Your task to perform on an android device: turn on bluetooth scan Image 0: 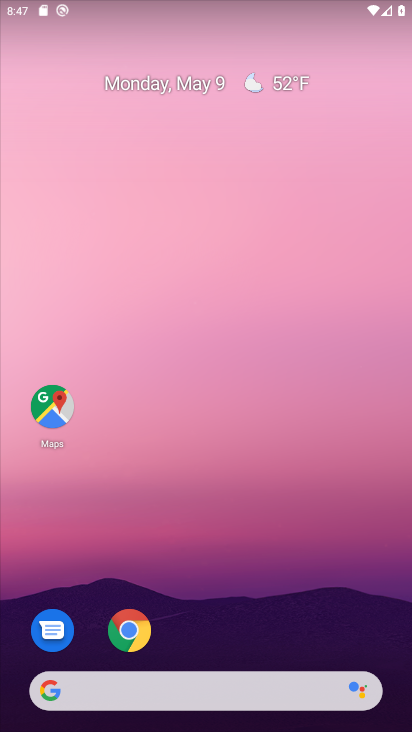
Step 0: drag from (224, 662) to (261, 26)
Your task to perform on an android device: turn on bluetooth scan Image 1: 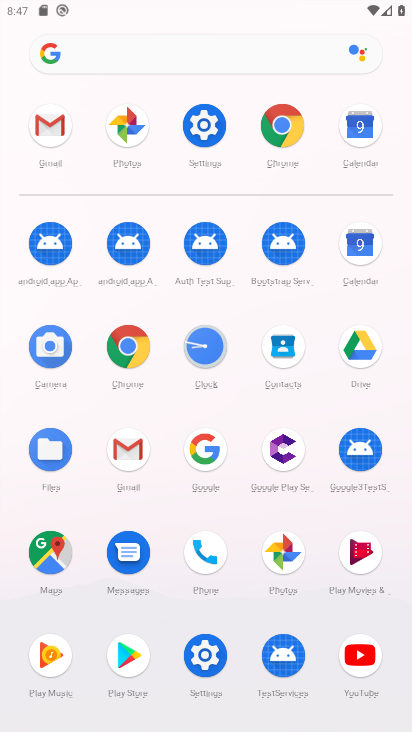
Step 1: click (202, 132)
Your task to perform on an android device: turn on bluetooth scan Image 2: 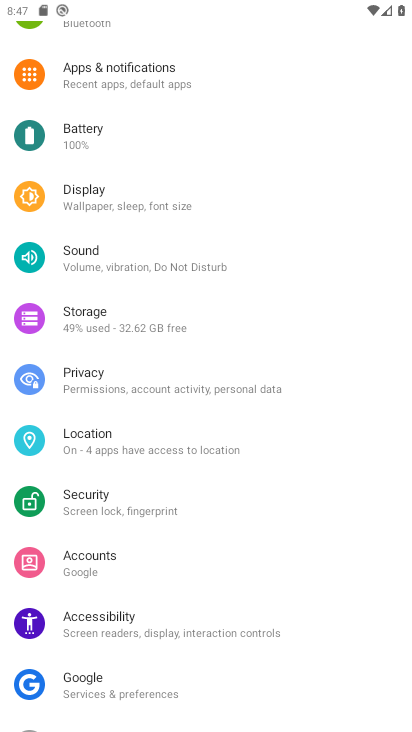
Step 2: drag from (137, 240) to (176, 181)
Your task to perform on an android device: turn on bluetooth scan Image 3: 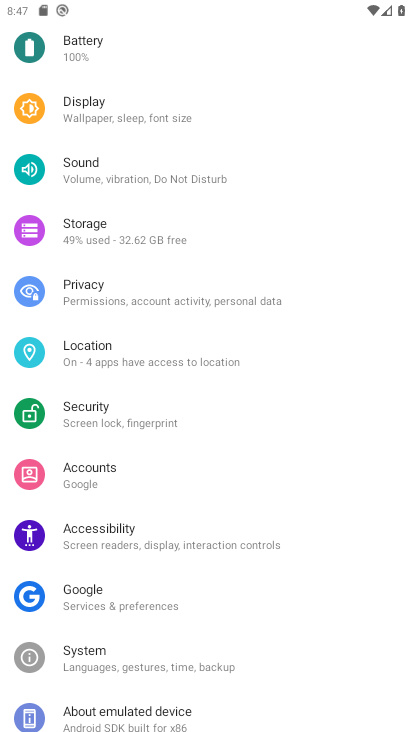
Step 3: click (136, 367)
Your task to perform on an android device: turn on bluetooth scan Image 4: 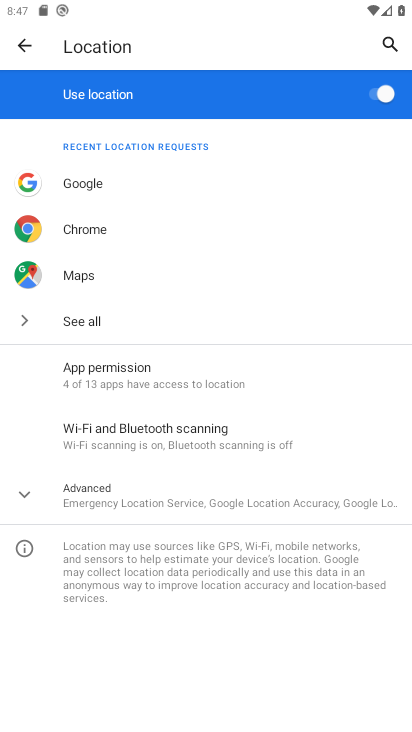
Step 4: click (121, 437)
Your task to perform on an android device: turn on bluetooth scan Image 5: 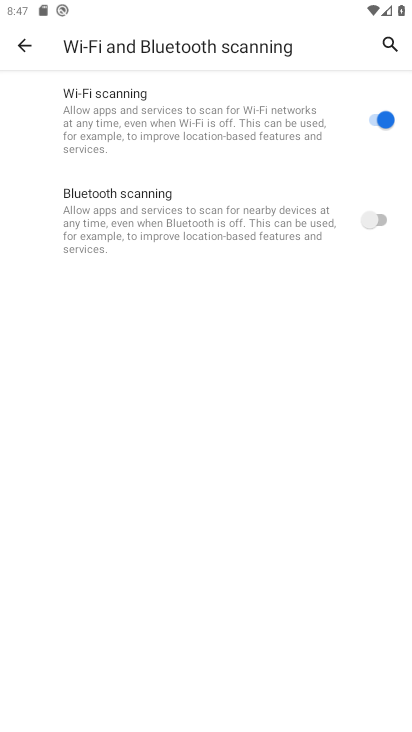
Step 5: click (385, 218)
Your task to perform on an android device: turn on bluetooth scan Image 6: 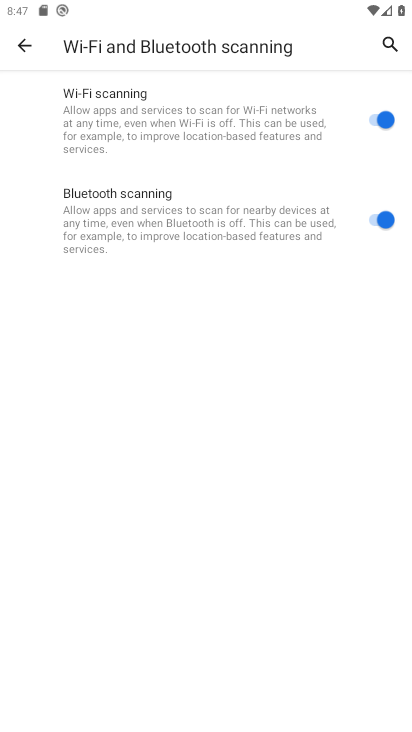
Step 6: task complete